Your task to perform on an android device: What is the recent news? Image 0: 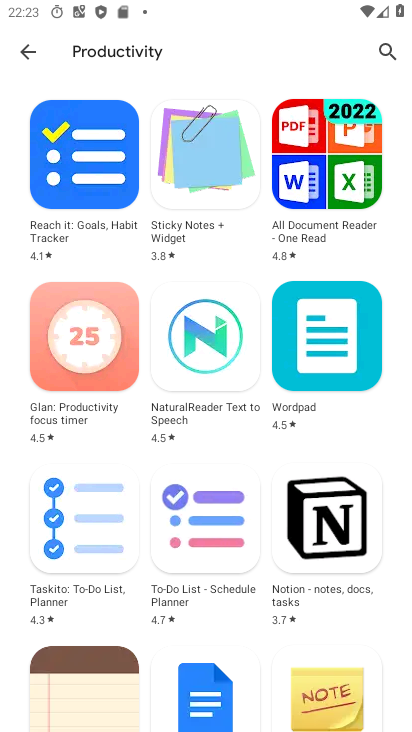
Step 0: press home button
Your task to perform on an android device: What is the recent news? Image 1: 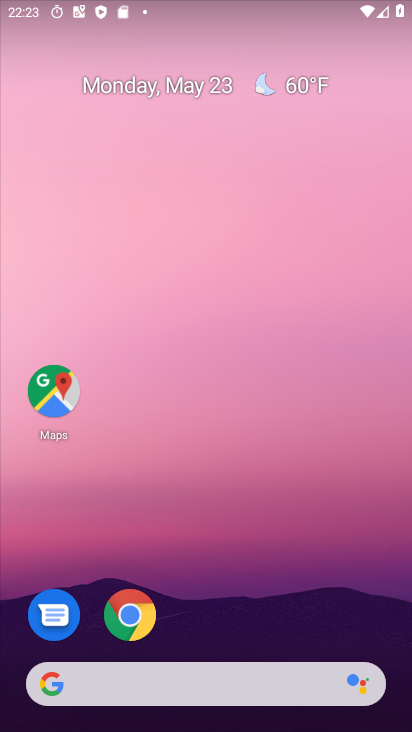
Step 1: drag from (228, 550) to (256, 111)
Your task to perform on an android device: What is the recent news? Image 2: 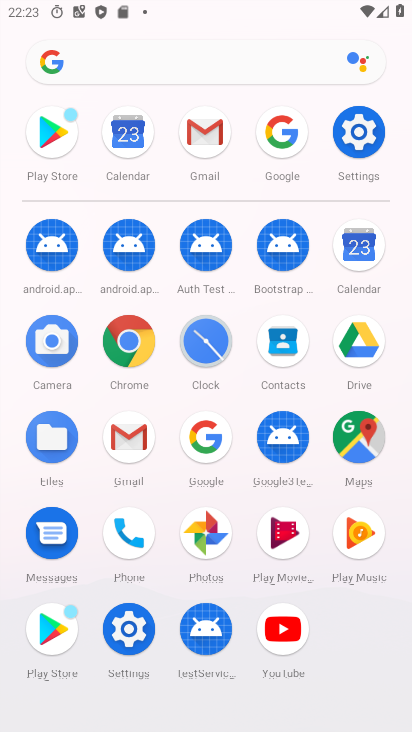
Step 2: click (203, 433)
Your task to perform on an android device: What is the recent news? Image 3: 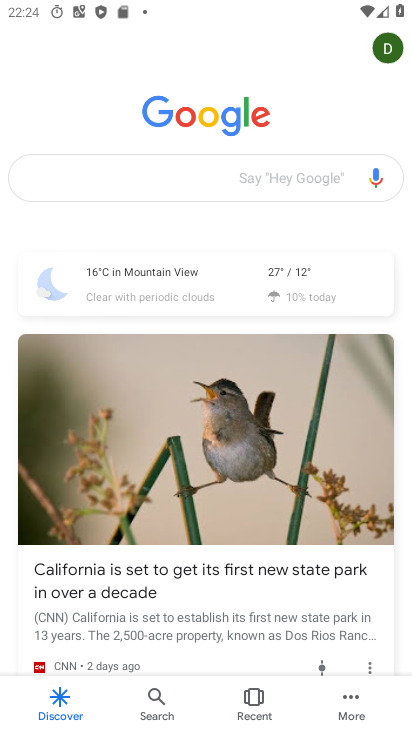
Step 3: click (180, 173)
Your task to perform on an android device: What is the recent news? Image 4: 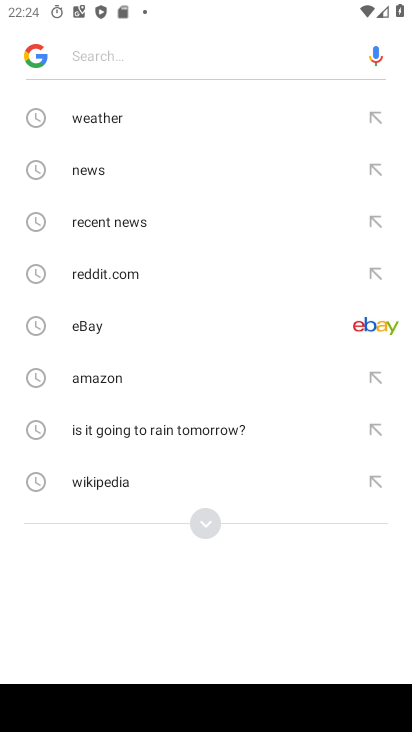
Step 4: drag from (130, 174) to (168, 79)
Your task to perform on an android device: What is the recent news? Image 5: 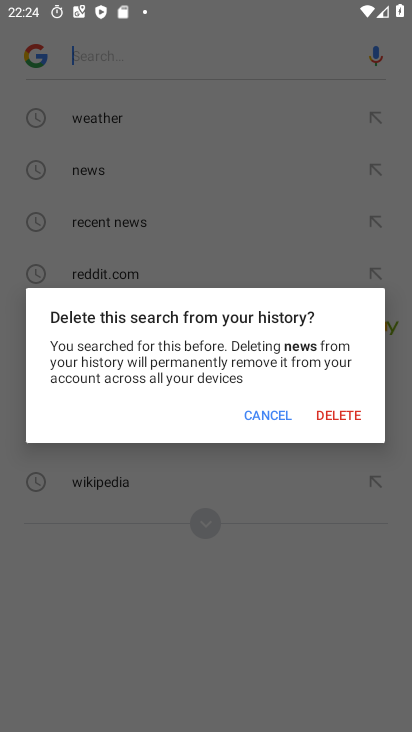
Step 5: click (275, 422)
Your task to perform on an android device: What is the recent news? Image 6: 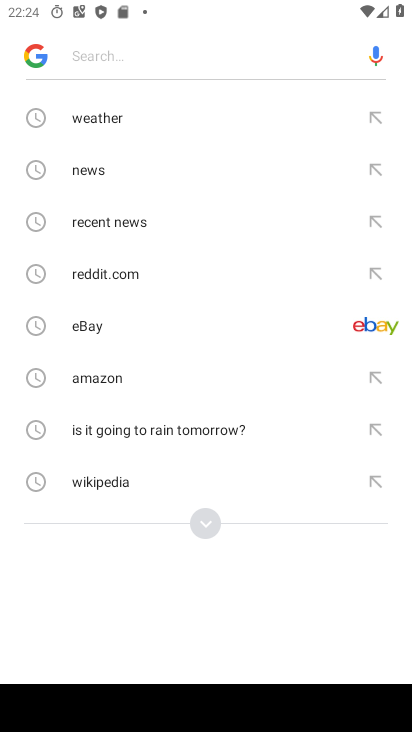
Step 6: click (141, 227)
Your task to perform on an android device: What is the recent news? Image 7: 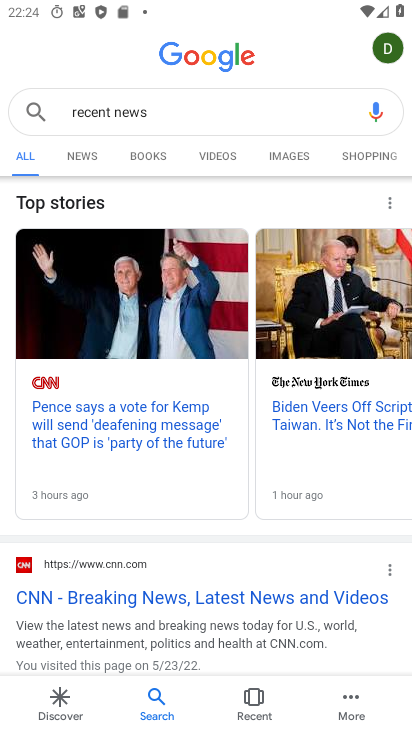
Step 7: task complete